Your task to perform on an android device: Open Chrome and go to settings Image 0: 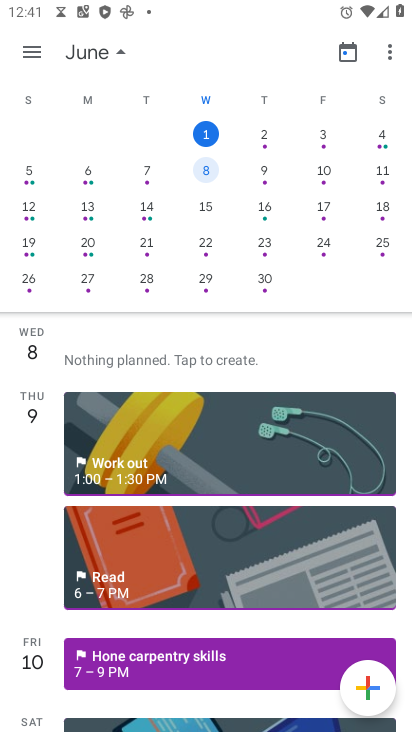
Step 0: press home button
Your task to perform on an android device: Open Chrome and go to settings Image 1: 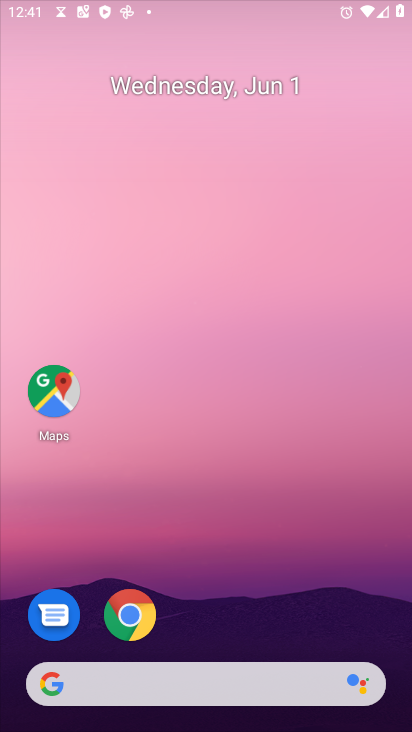
Step 1: drag from (307, 602) to (303, 119)
Your task to perform on an android device: Open Chrome and go to settings Image 2: 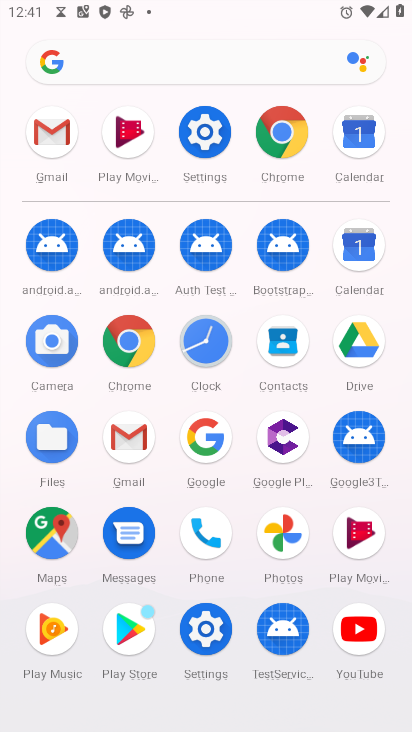
Step 2: click (299, 124)
Your task to perform on an android device: Open Chrome and go to settings Image 3: 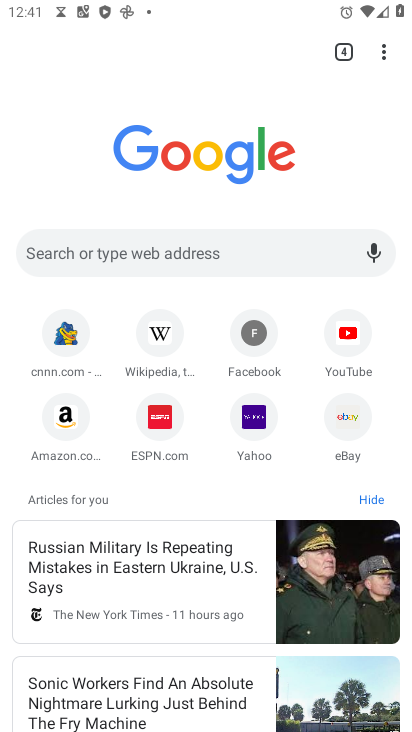
Step 3: task complete